Your task to perform on an android device: Open Google Chrome and open the bookmarks view Image 0: 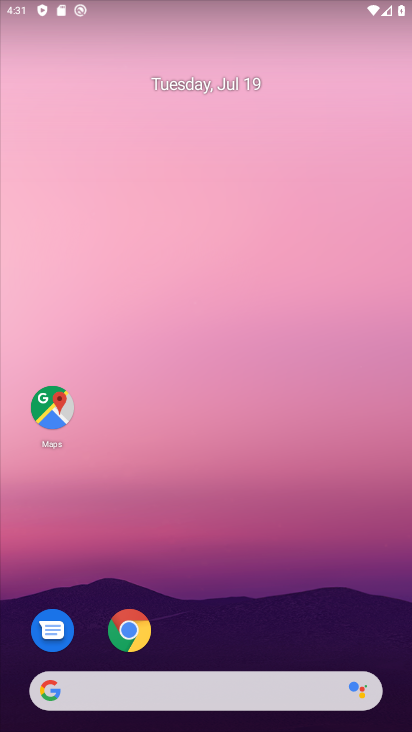
Step 0: drag from (266, 669) to (263, 347)
Your task to perform on an android device: Open Google Chrome and open the bookmarks view Image 1: 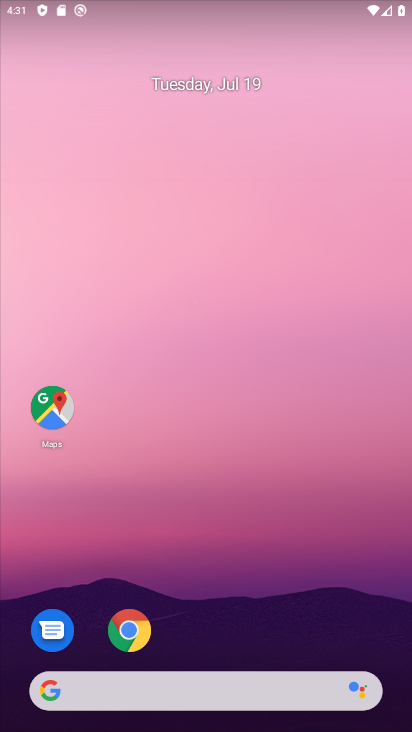
Step 1: drag from (181, 518) to (181, 174)
Your task to perform on an android device: Open Google Chrome and open the bookmarks view Image 2: 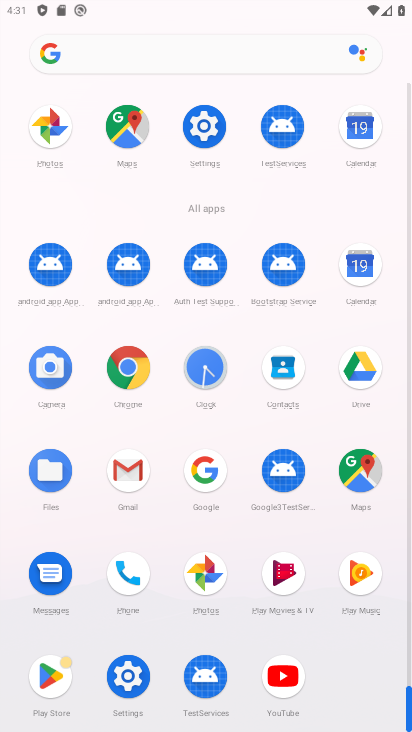
Step 2: click (121, 371)
Your task to perform on an android device: Open Google Chrome and open the bookmarks view Image 3: 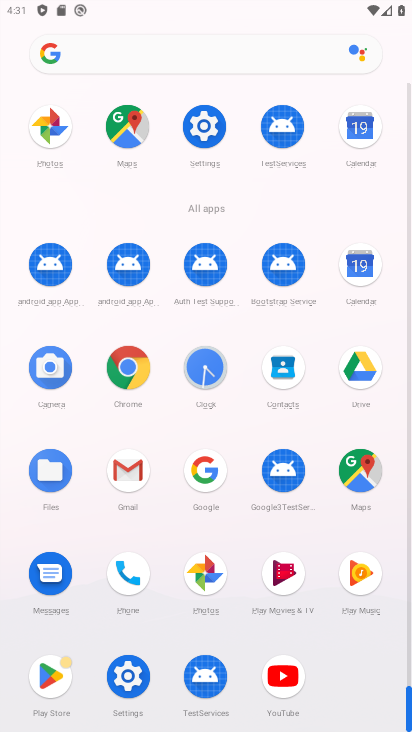
Step 3: click (121, 374)
Your task to perform on an android device: Open Google Chrome and open the bookmarks view Image 4: 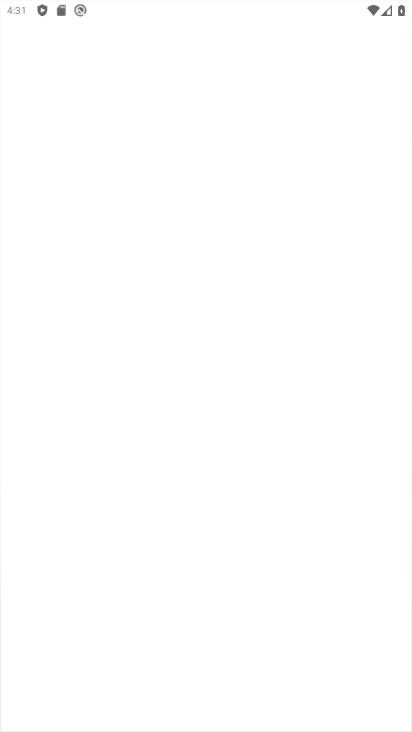
Step 4: click (121, 370)
Your task to perform on an android device: Open Google Chrome and open the bookmarks view Image 5: 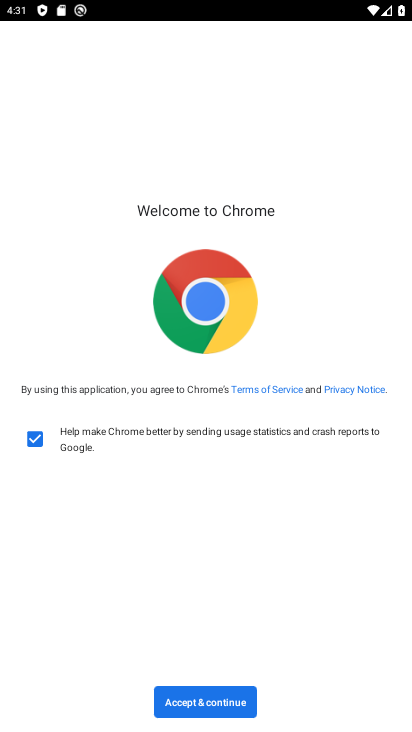
Step 5: click (199, 699)
Your task to perform on an android device: Open Google Chrome and open the bookmarks view Image 6: 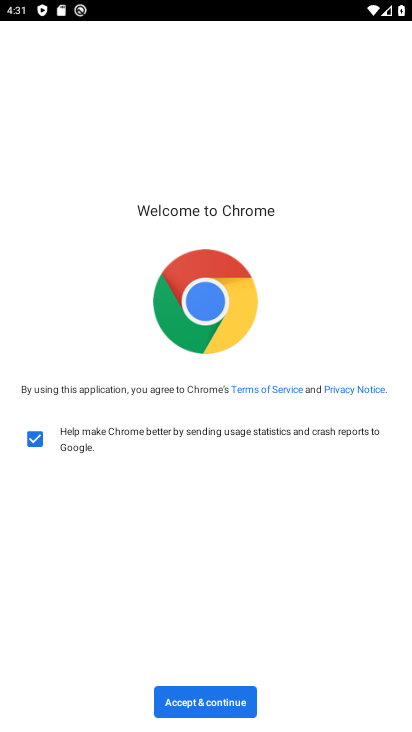
Step 6: click (197, 701)
Your task to perform on an android device: Open Google Chrome and open the bookmarks view Image 7: 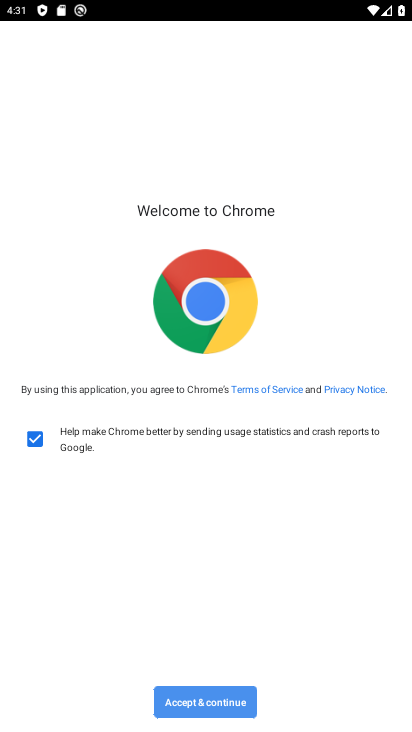
Step 7: click (196, 702)
Your task to perform on an android device: Open Google Chrome and open the bookmarks view Image 8: 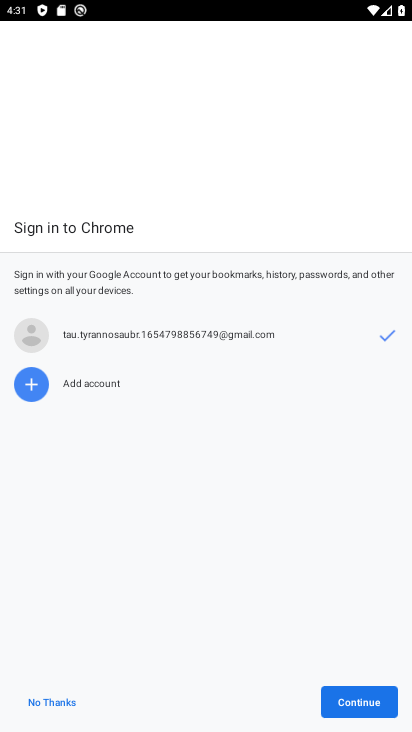
Step 8: click (341, 692)
Your task to perform on an android device: Open Google Chrome and open the bookmarks view Image 9: 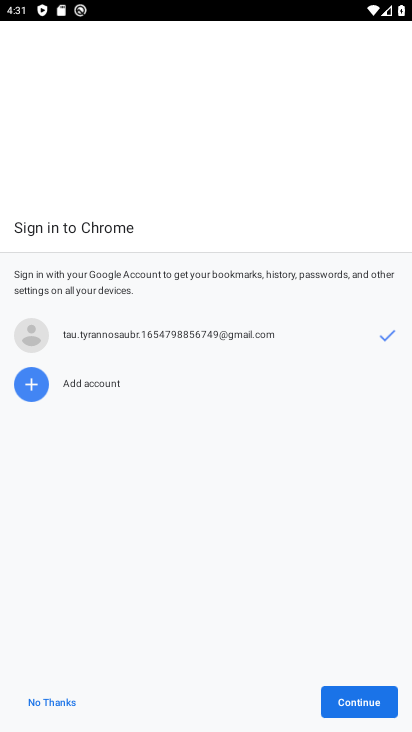
Step 9: click (363, 700)
Your task to perform on an android device: Open Google Chrome and open the bookmarks view Image 10: 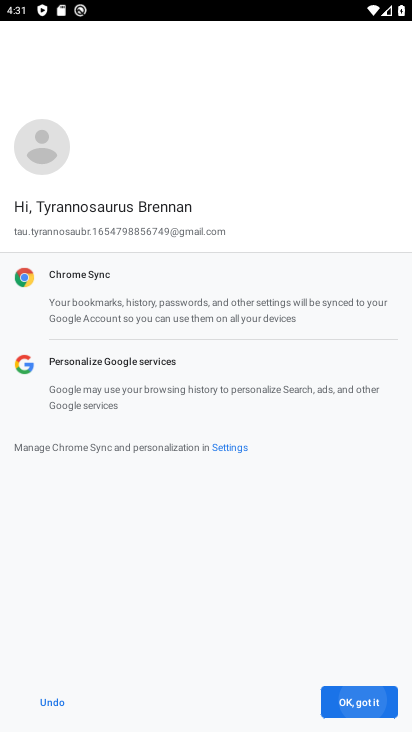
Step 10: click (370, 704)
Your task to perform on an android device: Open Google Chrome and open the bookmarks view Image 11: 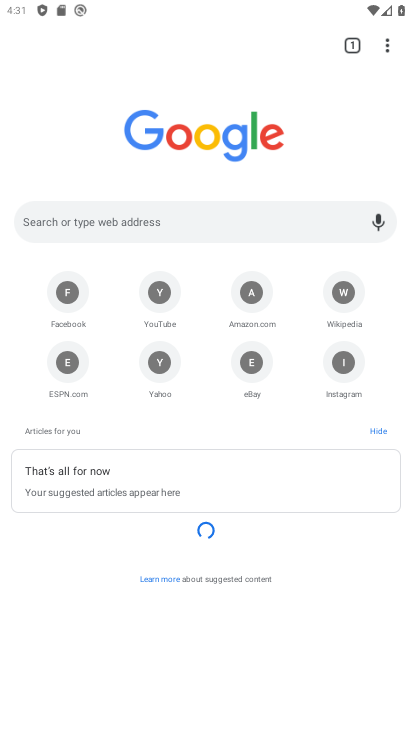
Step 11: drag from (386, 50) to (216, 172)
Your task to perform on an android device: Open Google Chrome and open the bookmarks view Image 12: 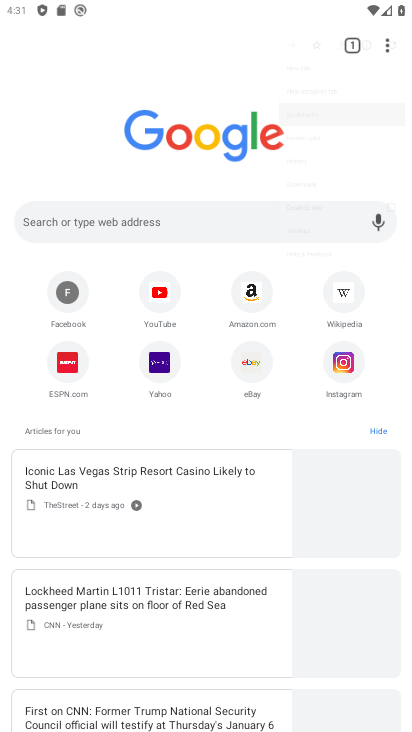
Step 12: click (217, 172)
Your task to perform on an android device: Open Google Chrome and open the bookmarks view Image 13: 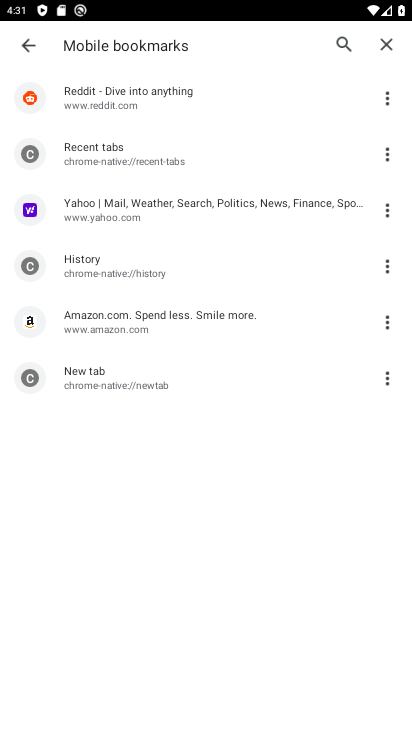
Step 13: task complete